Your task to perform on an android device: open app "Truecaller" (install if not already installed) and enter user name: "coauthor@gmail.com" and password: "quadrangle" Image 0: 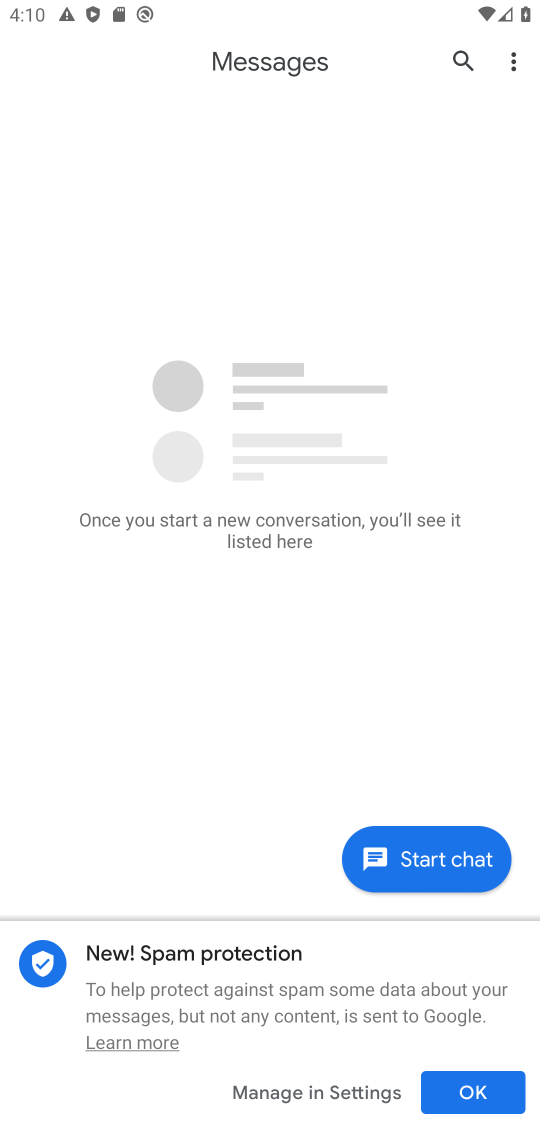
Step 0: press home button
Your task to perform on an android device: open app "Truecaller" (install if not already installed) and enter user name: "coauthor@gmail.com" and password: "quadrangle" Image 1: 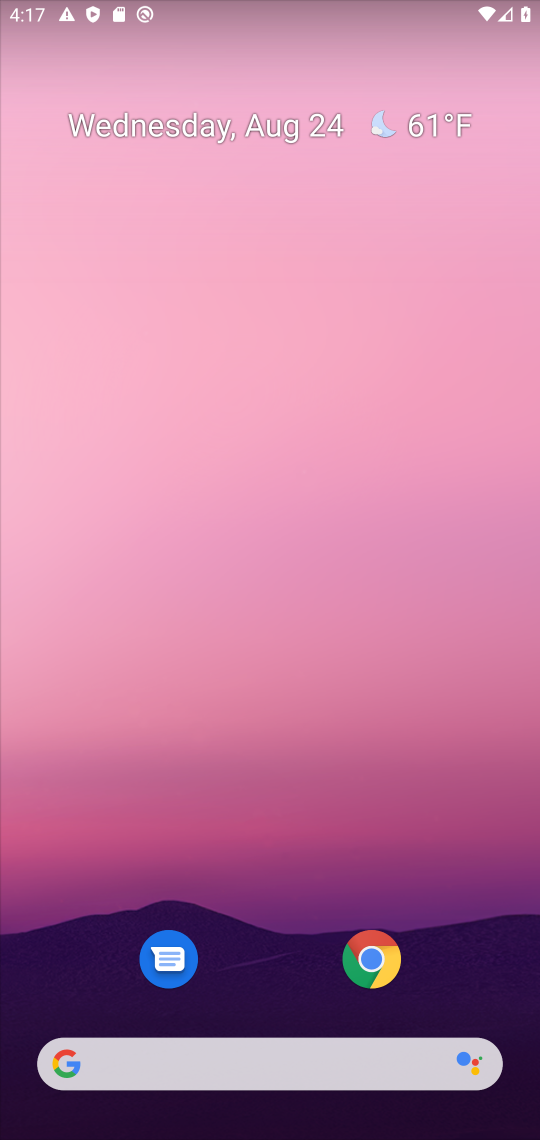
Step 1: task complete